Your task to perform on an android device: Open my contact list Image 0: 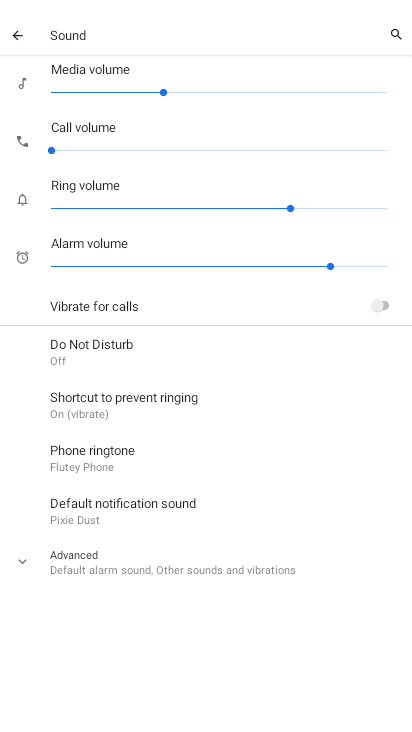
Step 0: press home button
Your task to perform on an android device: Open my contact list Image 1: 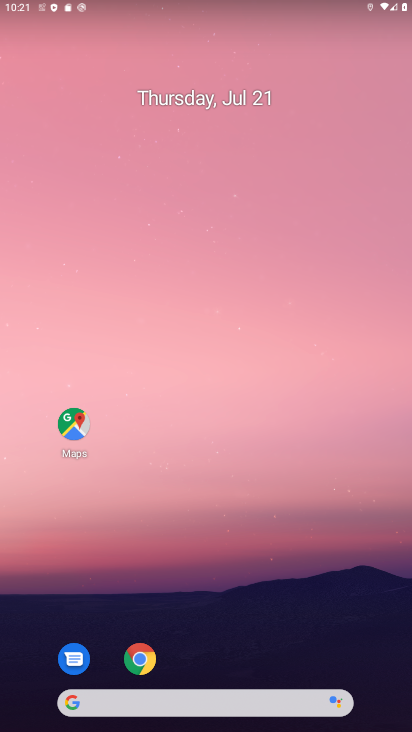
Step 1: drag from (208, 677) to (138, 233)
Your task to perform on an android device: Open my contact list Image 2: 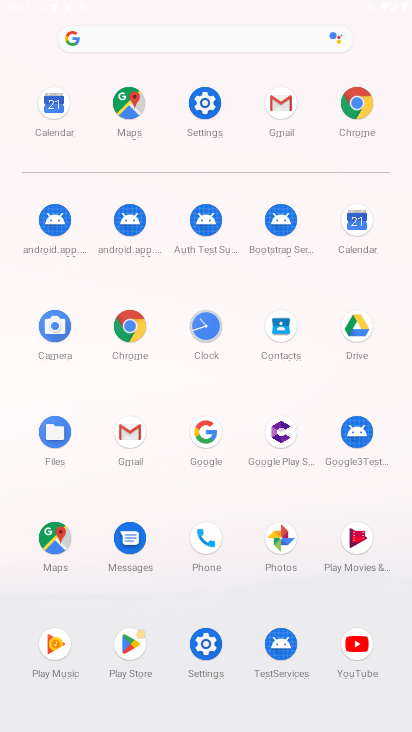
Step 2: click (193, 541)
Your task to perform on an android device: Open my contact list Image 3: 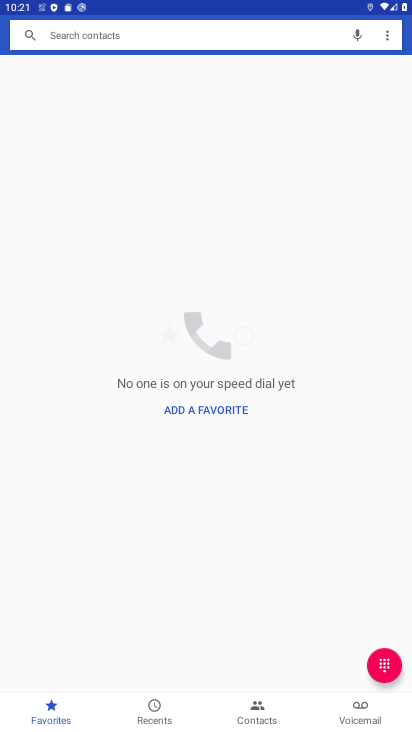
Step 3: click (259, 704)
Your task to perform on an android device: Open my contact list Image 4: 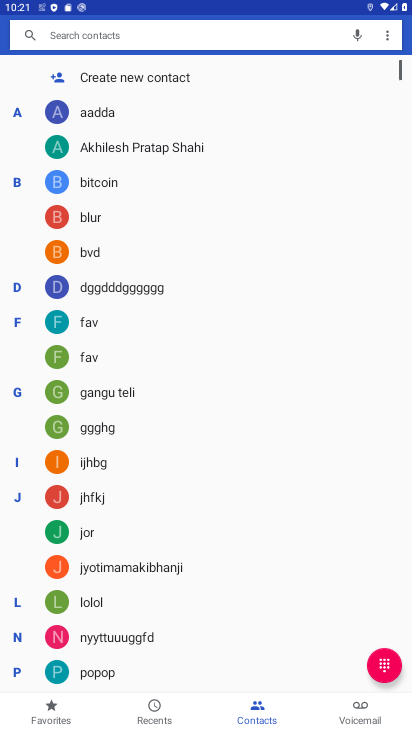
Step 4: task complete